Your task to perform on an android device: Turn on the flashlight Image 0: 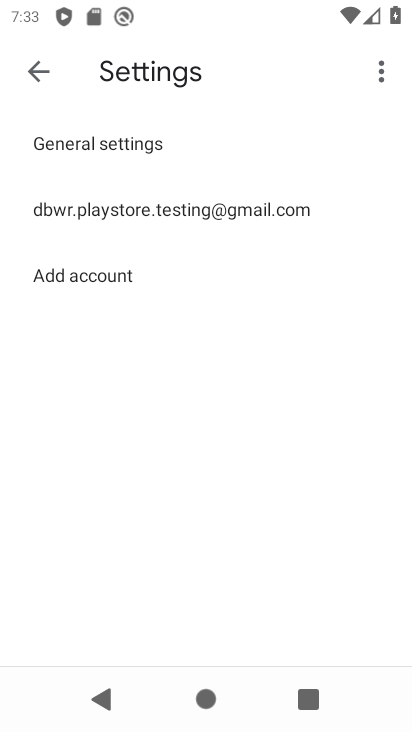
Step 0: press home button
Your task to perform on an android device: Turn on the flashlight Image 1: 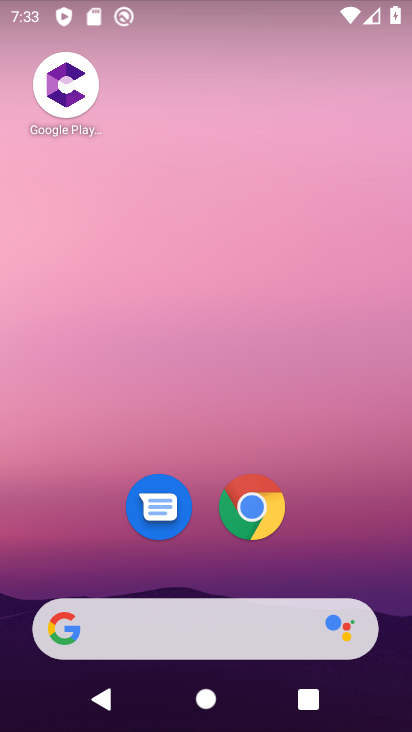
Step 1: drag from (241, 3) to (250, 419)
Your task to perform on an android device: Turn on the flashlight Image 2: 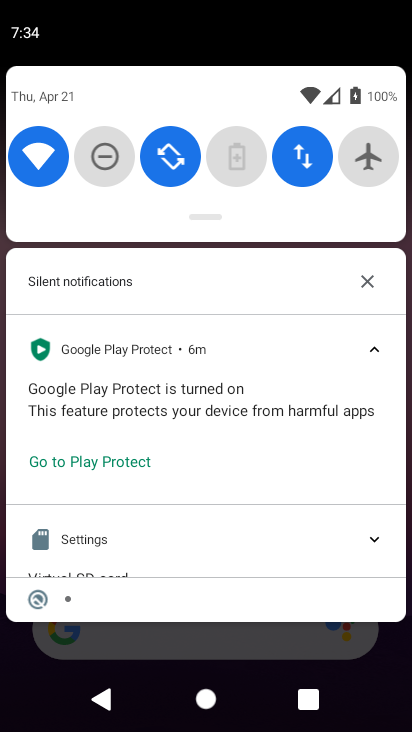
Step 2: drag from (260, 111) to (253, 410)
Your task to perform on an android device: Turn on the flashlight Image 3: 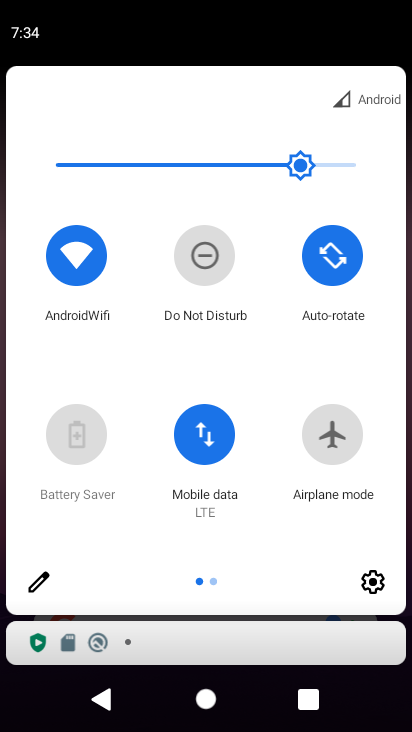
Step 3: click (33, 581)
Your task to perform on an android device: Turn on the flashlight Image 4: 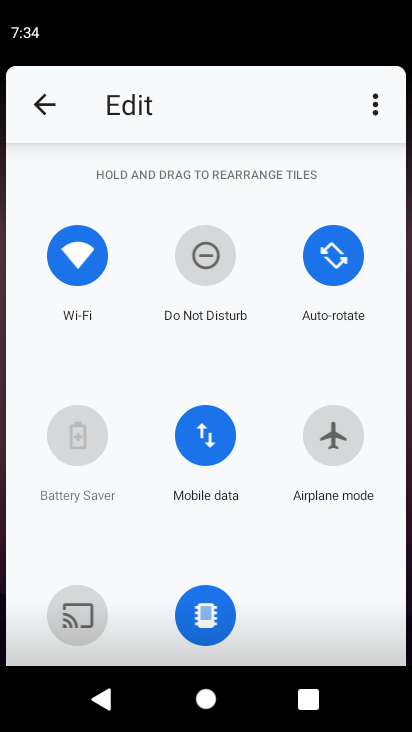
Step 4: task complete